Your task to perform on an android device: Open Google Chrome Image 0: 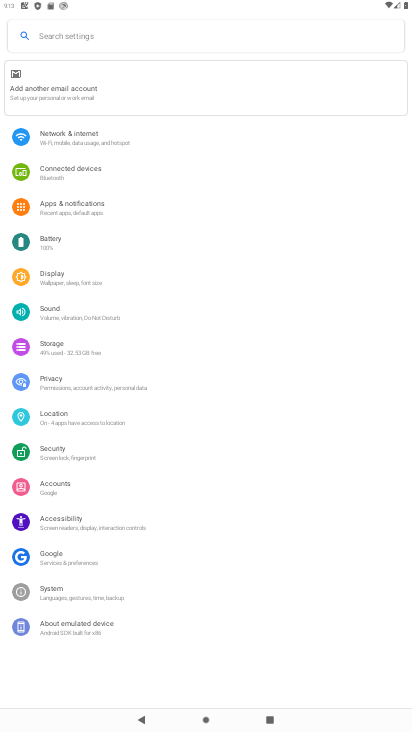
Step 0: task complete